Your task to perform on an android device: toggle notifications settings in the gmail app Image 0: 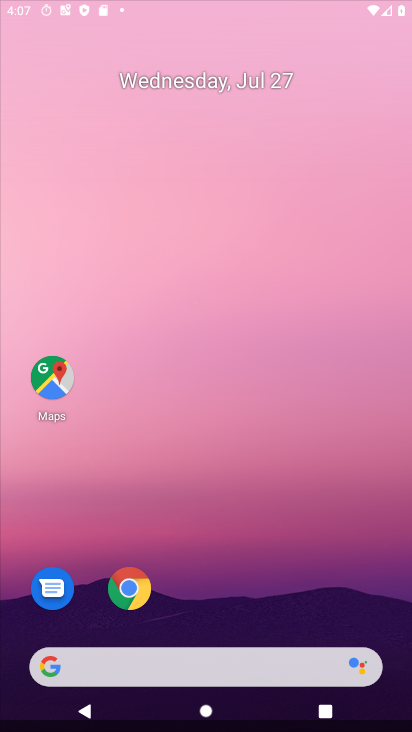
Step 0: press home button
Your task to perform on an android device: toggle notifications settings in the gmail app Image 1: 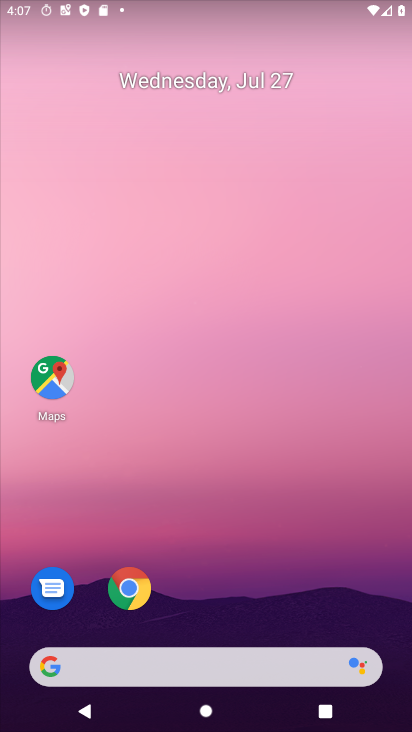
Step 1: drag from (235, 603) to (59, 4)
Your task to perform on an android device: toggle notifications settings in the gmail app Image 2: 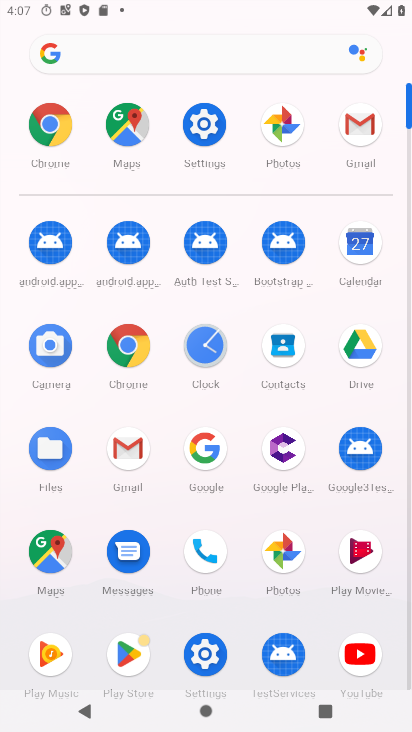
Step 2: click (354, 125)
Your task to perform on an android device: toggle notifications settings in the gmail app Image 3: 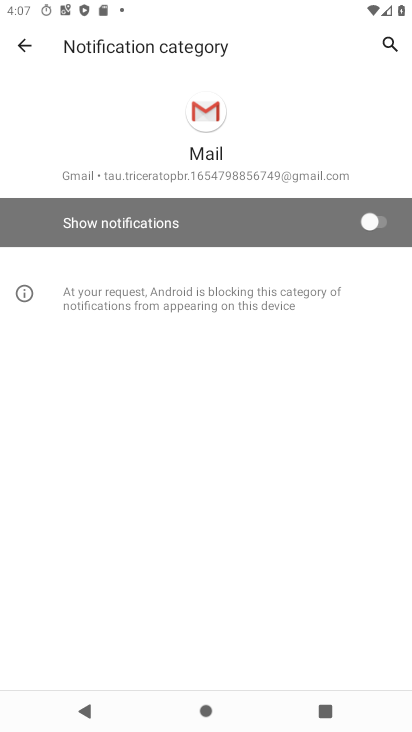
Step 3: click (382, 220)
Your task to perform on an android device: toggle notifications settings in the gmail app Image 4: 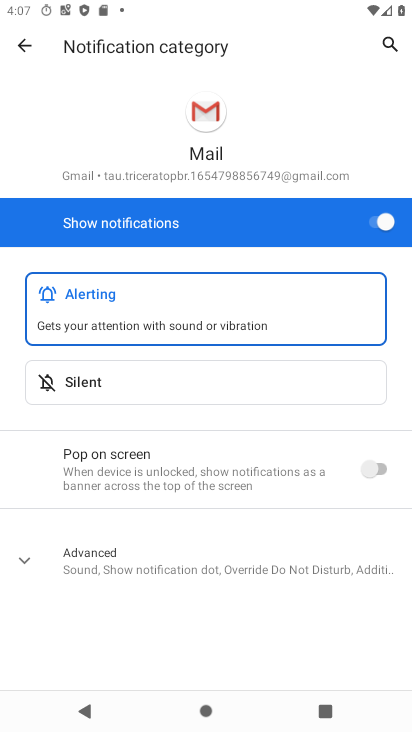
Step 4: task complete